Your task to perform on an android device: Open Yahoo.com Image 0: 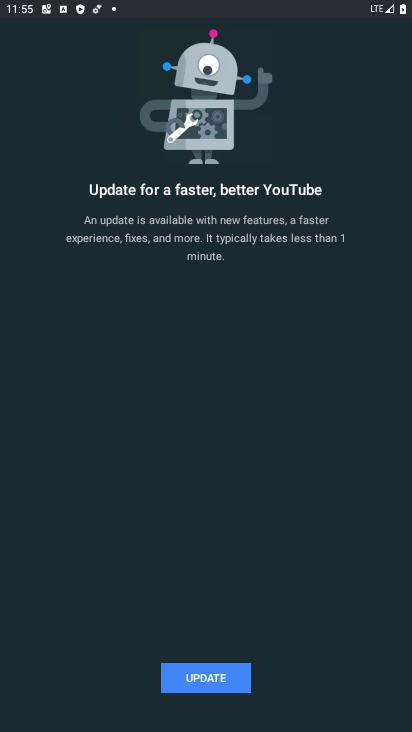
Step 0: press home button
Your task to perform on an android device: Open Yahoo.com Image 1: 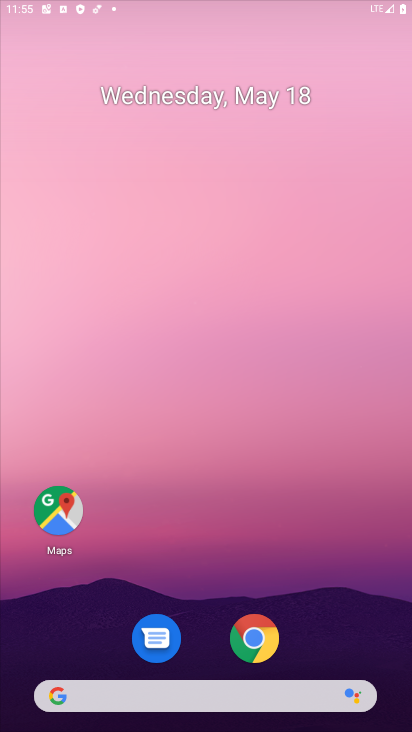
Step 1: drag from (357, 613) to (385, 31)
Your task to perform on an android device: Open Yahoo.com Image 2: 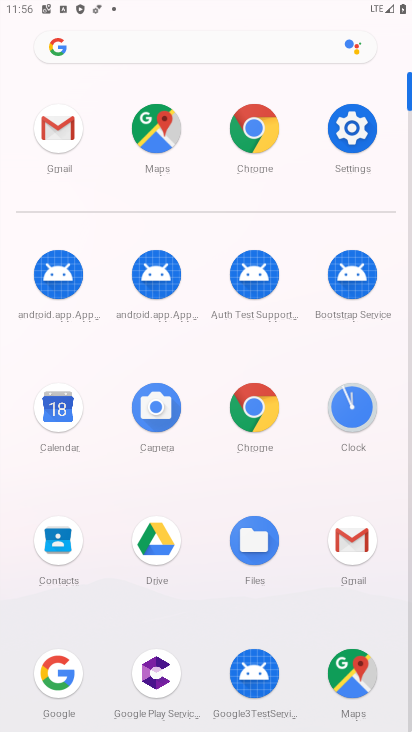
Step 2: click (254, 150)
Your task to perform on an android device: Open Yahoo.com Image 3: 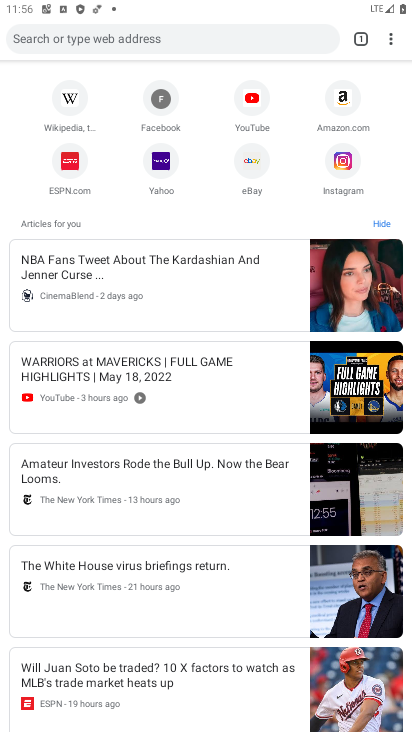
Step 3: click (174, 159)
Your task to perform on an android device: Open Yahoo.com Image 4: 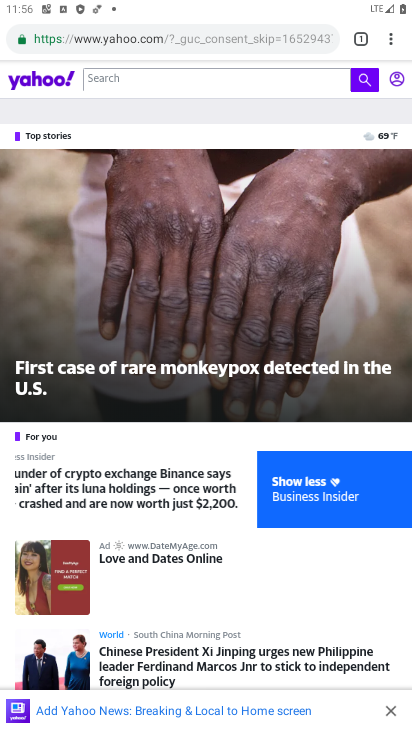
Step 4: task complete